Your task to perform on an android device: turn off picture-in-picture Image 0: 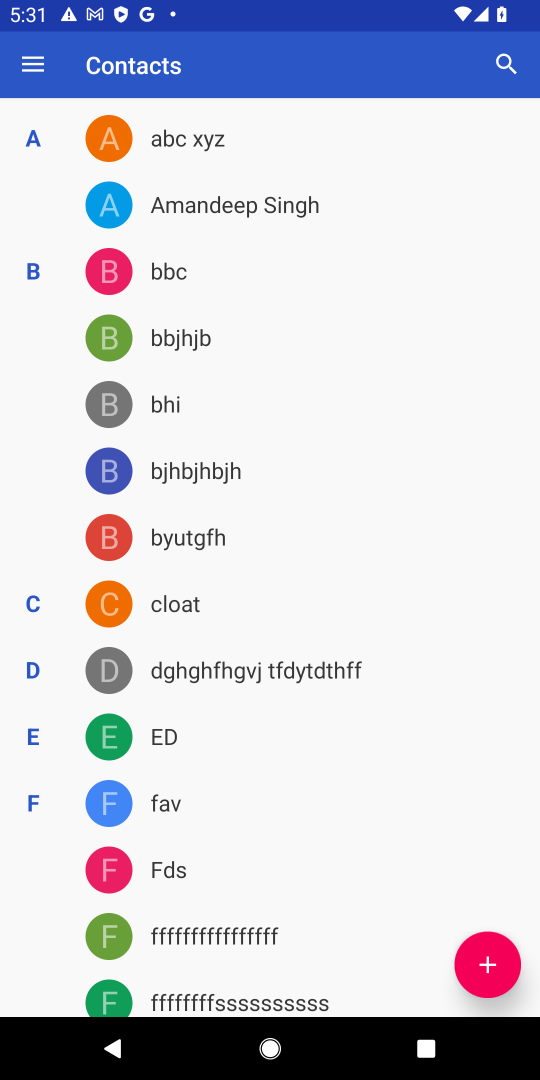
Step 0: press home button
Your task to perform on an android device: turn off picture-in-picture Image 1: 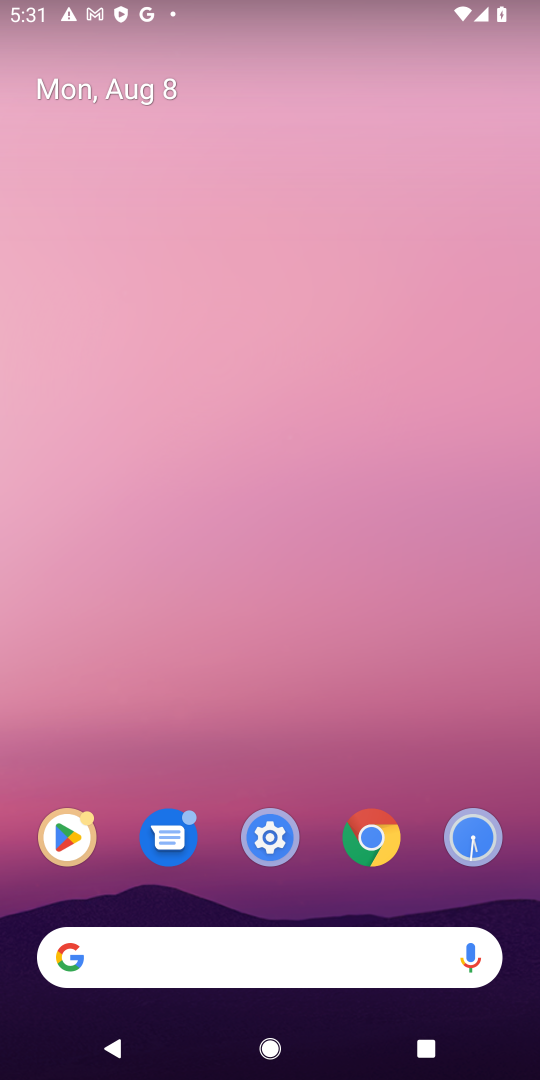
Step 1: drag from (252, 107) to (335, 19)
Your task to perform on an android device: turn off picture-in-picture Image 2: 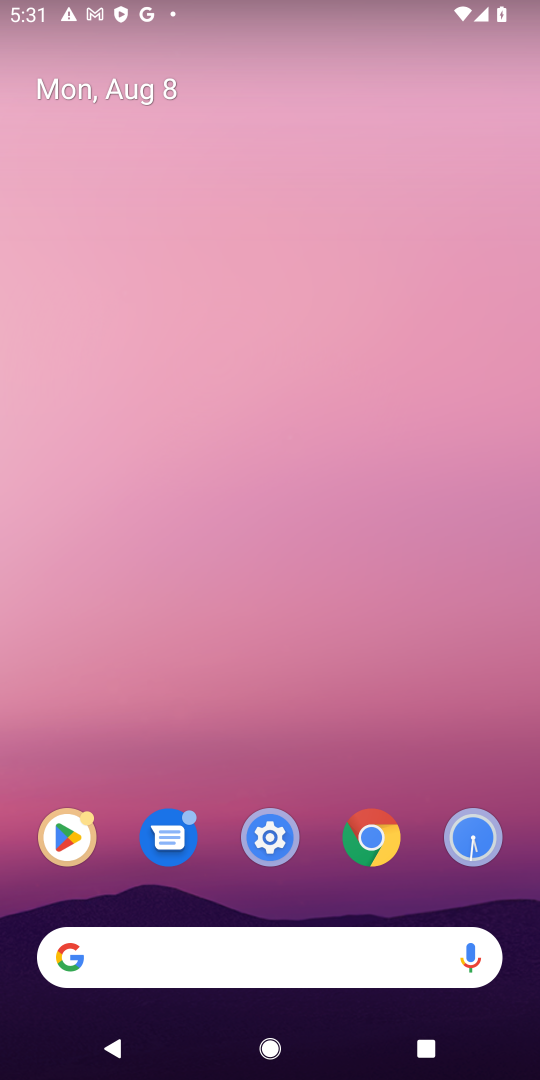
Step 2: click (389, 838)
Your task to perform on an android device: turn off picture-in-picture Image 3: 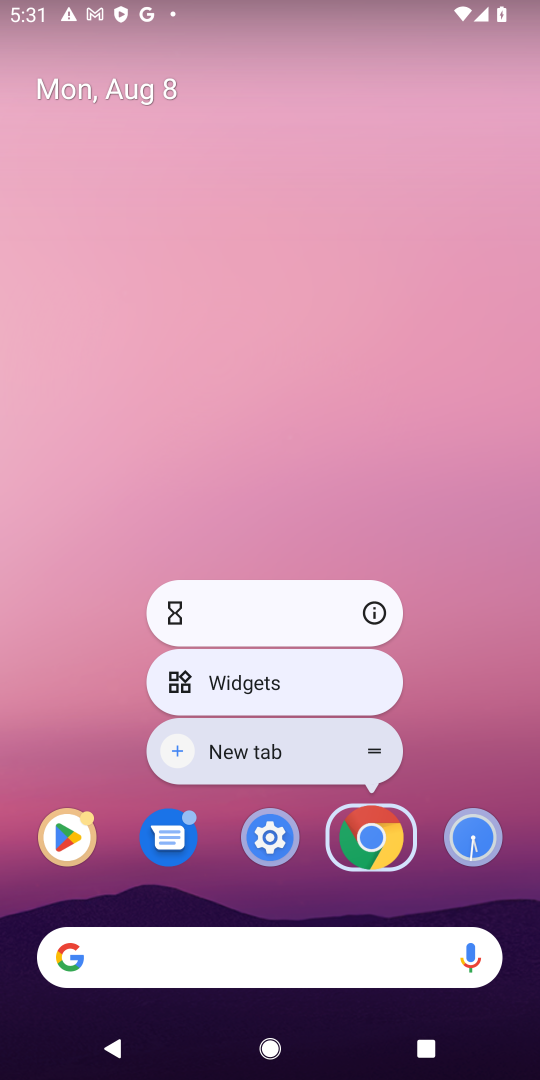
Step 3: click (383, 612)
Your task to perform on an android device: turn off picture-in-picture Image 4: 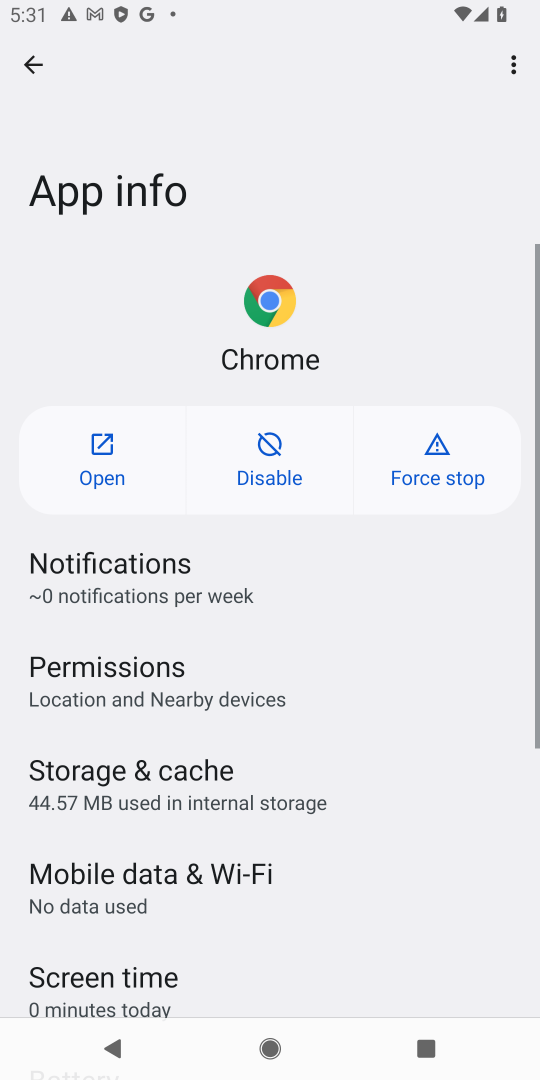
Step 4: drag from (222, 934) to (361, 125)
Your task to perform on an android device: turn off picture-in-picture Image 5: 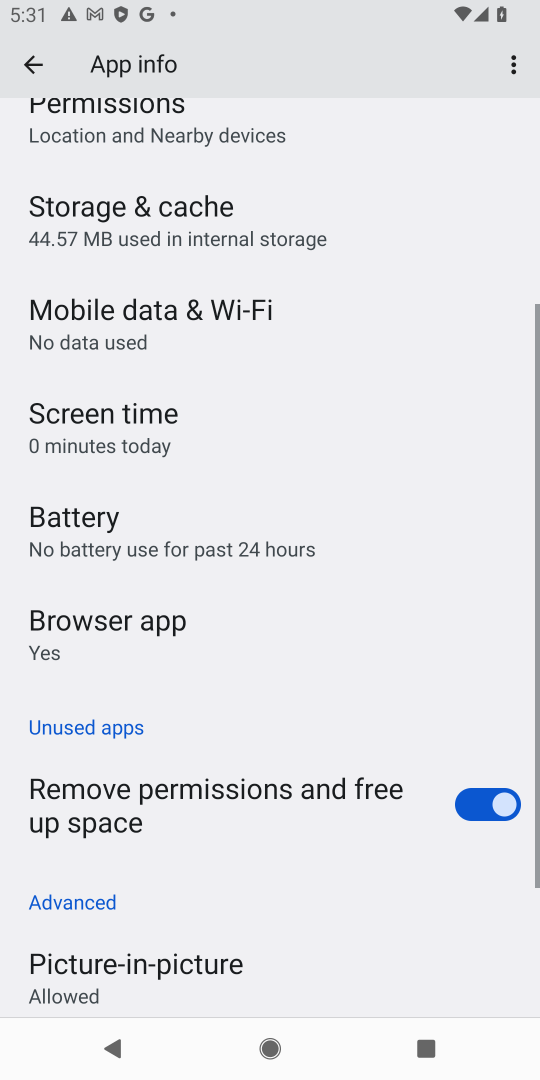
Step 5: drag from (180, 948) to (249, 360)
Your task to perform on an android device: turn off picture-in-picture Image 6: 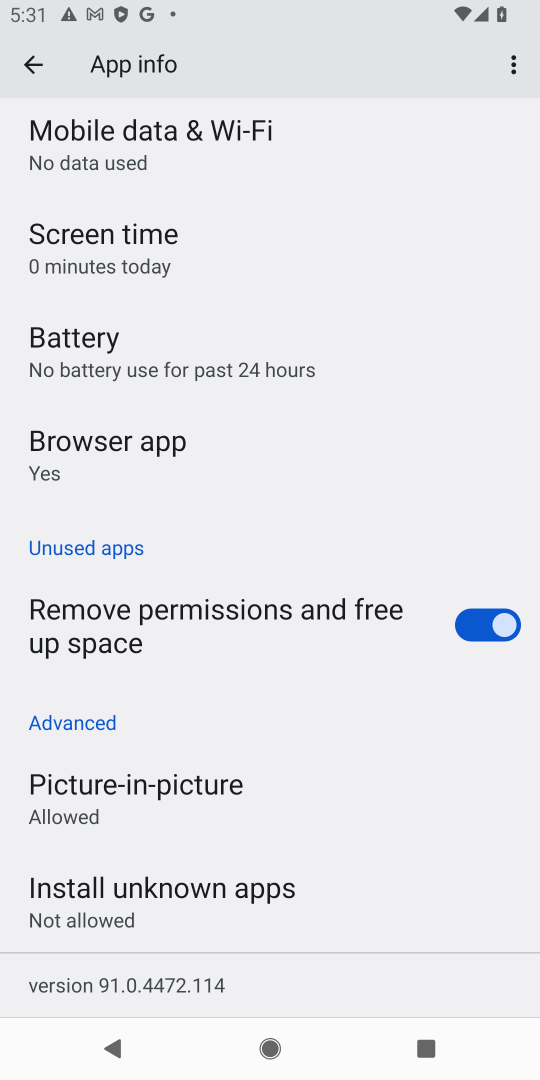
Step 6: click (134, 797)
Your task to perform on an android device: turn off picture-in-picture Image 7: 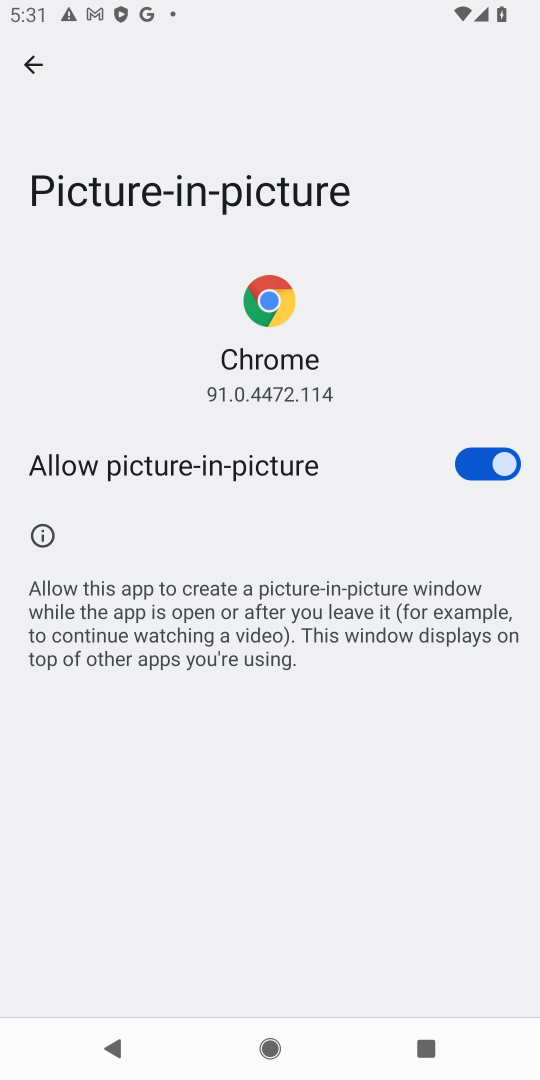
Step 7: click (482, 474)
Your task to perform on an android device: turn off picture-in-picture Image 8: 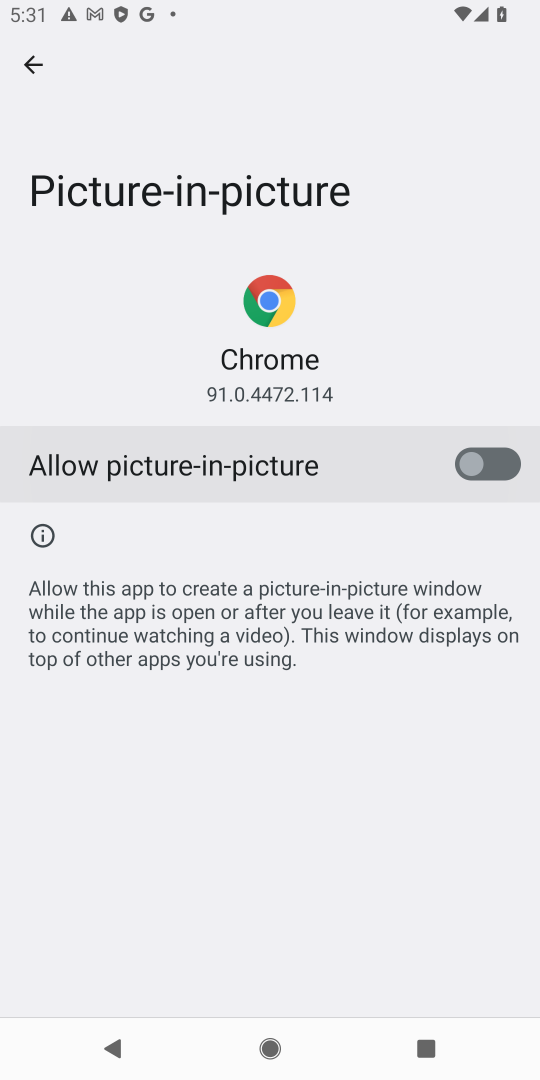
Step 8: task complete